Your task to perform on an android device: Open Google Image 0: 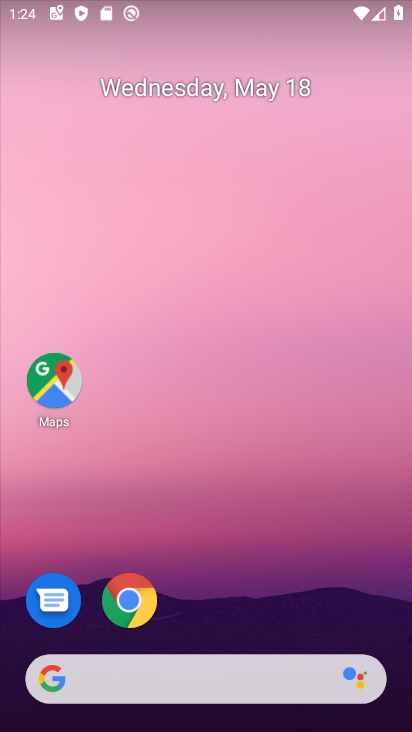
Step 0: drag from (259, 613) to (217, 189)
Your task to perform on an android device: Open Google Image 1: 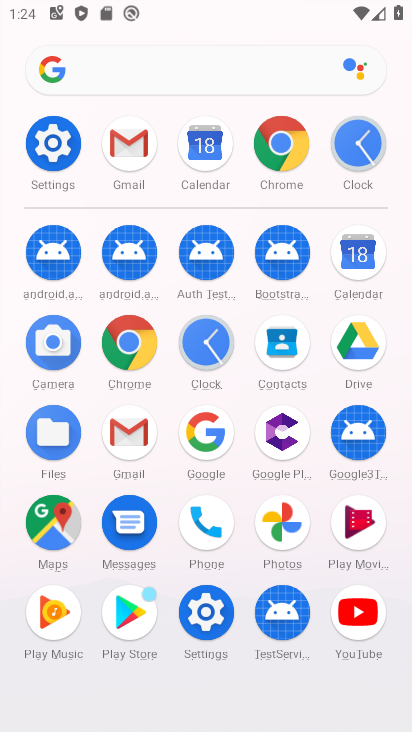
Step 1: click (200, 430)
Your task to perform on an android device: Open Google Image 2: 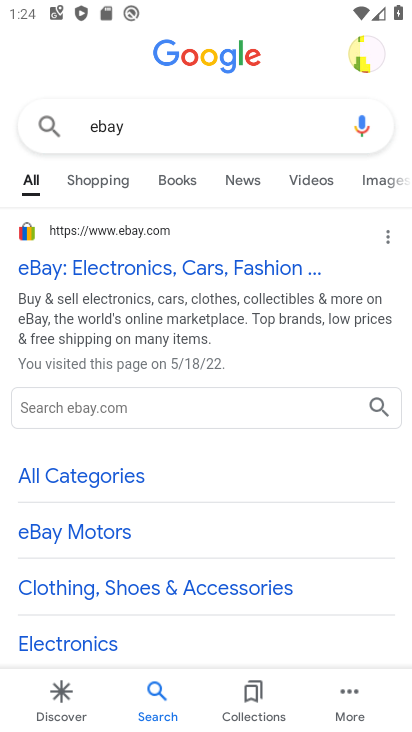
Step 2: task complete